Your task to perform on an android device: Add dell xps to the cart on target.com Image 0: 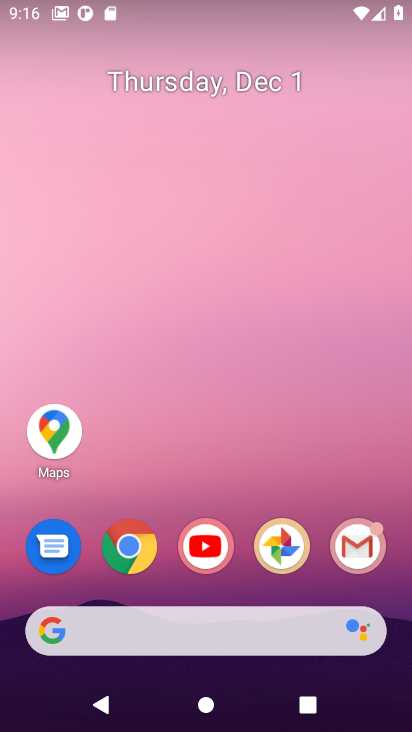
Step 0: click (134, 542)
Your task to perform on an android device: Add dell xps to the cart on target.com Image 1: 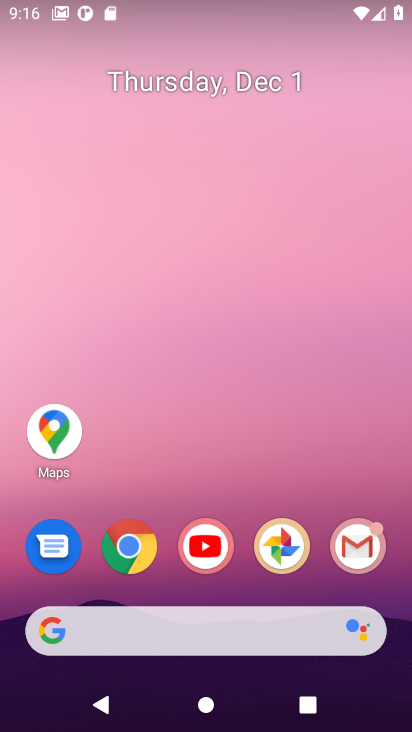
Step 1: click (134, 542)
Your task to perform on an android device: Add dell xps to the cart on target.com Image 2: 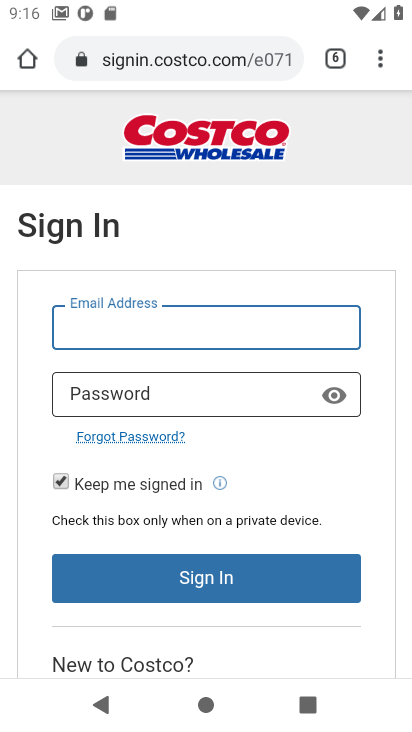
Step 2: click (158, 60)
Your task to perform on an android device: Add dell xps to the cart on target.com Image 3: 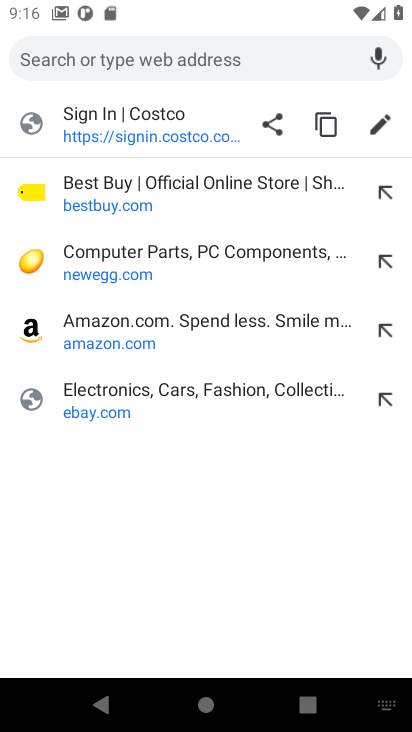
Step 3: type "target.com"
Your task to perform on an android device: Add dell xps to the cart on target.com Image 4: 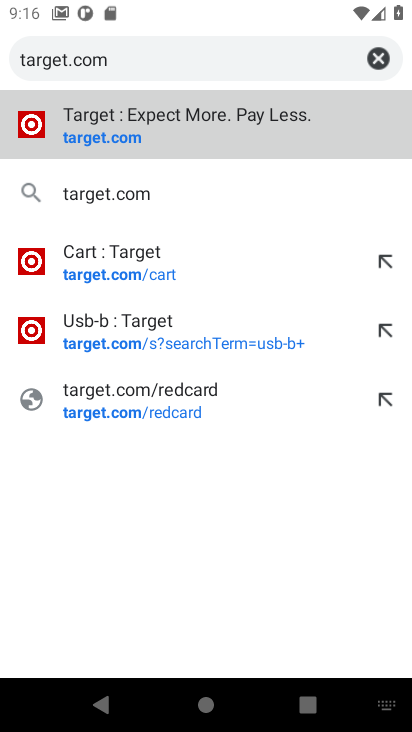
Step 4: click (98, 137)
Your task to perform on an android device: Add dell xps to the cart on target.com Image 5: 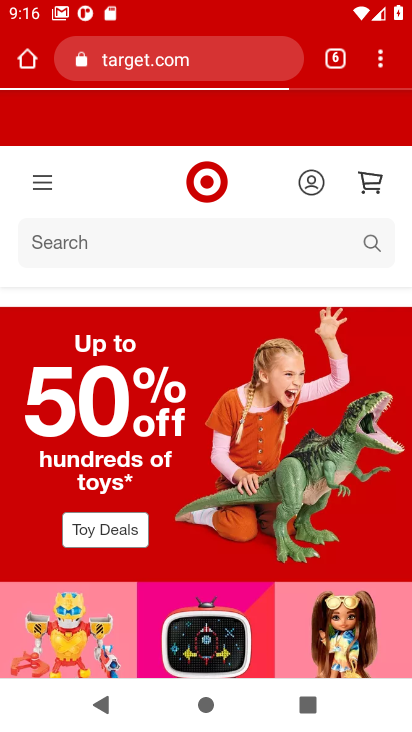
Step 5: click (57, 241)
Your task to perform on an android device: Add dell xps to the cart on target.com Image 6: 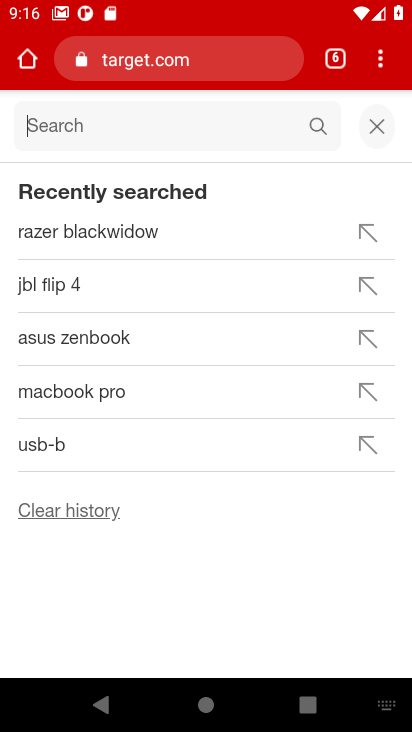
Step 6: type "dell xps"
Your task to perform on an android device: Add dell xps to the cart on target.com Image 7: 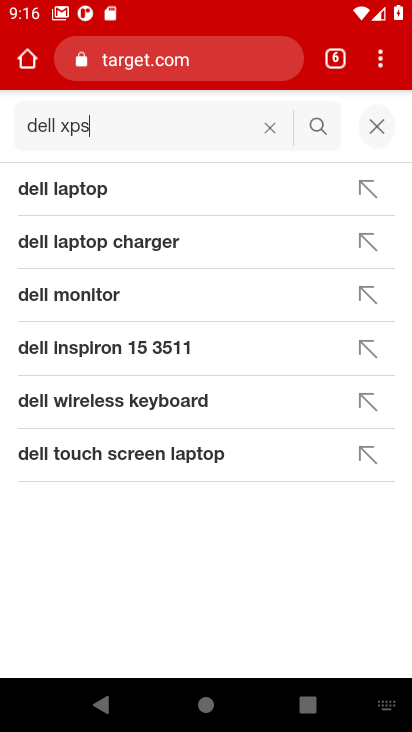
Step 7: click (322, 124)
Your task to perform on an android device: Add dell xps to the cart on target.com Image 8: 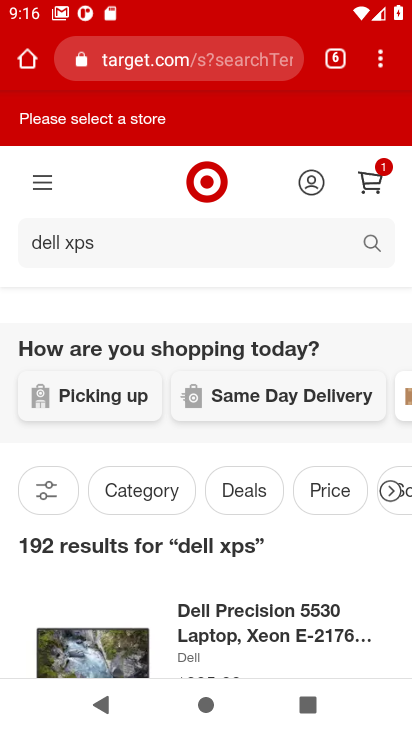
Step 8: task complete